Your task to perform on an android device: Open ESPN.com Image 0: 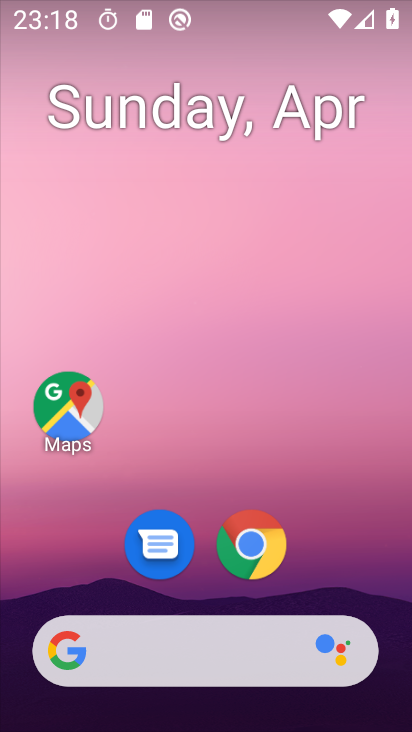
Step 0: drag from (347, 499) to (322, 161)
Your task to perform on an android device: Open ESPN.com Image 1: 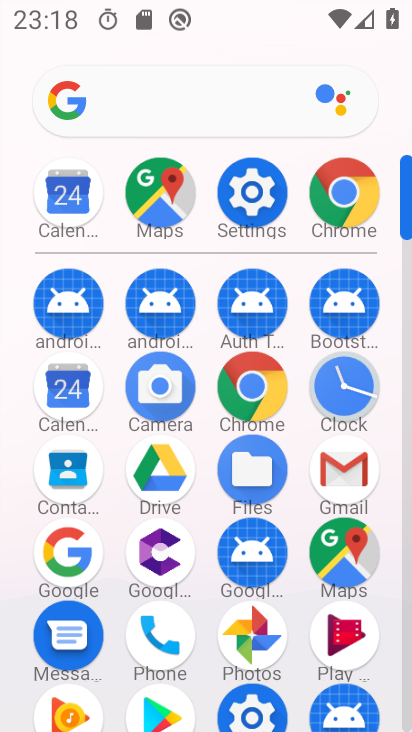
Step 1: click (343, 192)
Your task to perform on an android device: Open ESPN.com Image 2: 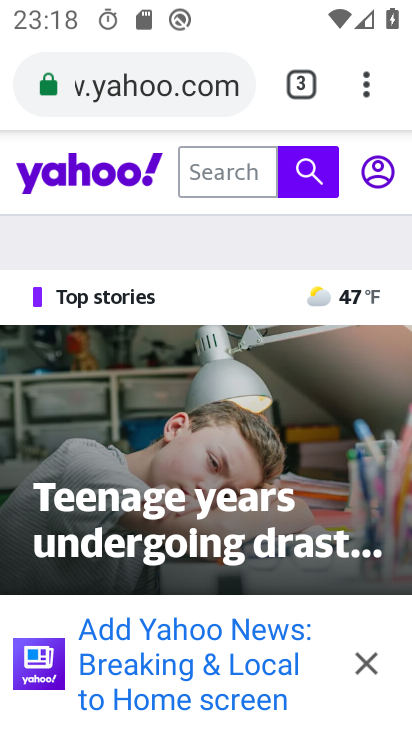
Step 2: click (369, 87)
Your task to perform on an android device: Open ESPN.com Image 3: 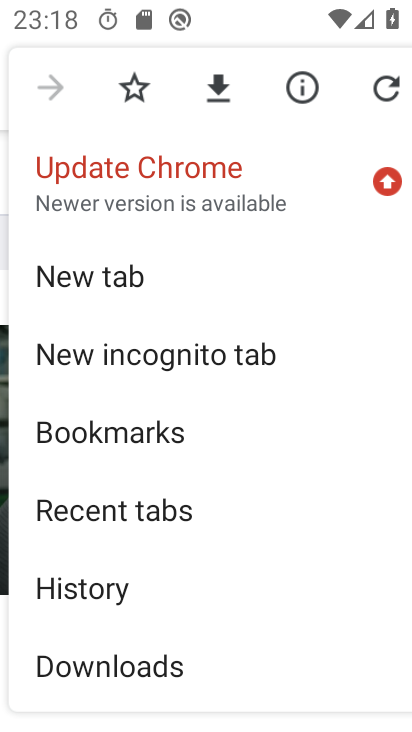
Step 3: click (120, 266)
Your task to perform on an android device: Open ESPN.com Image 4: 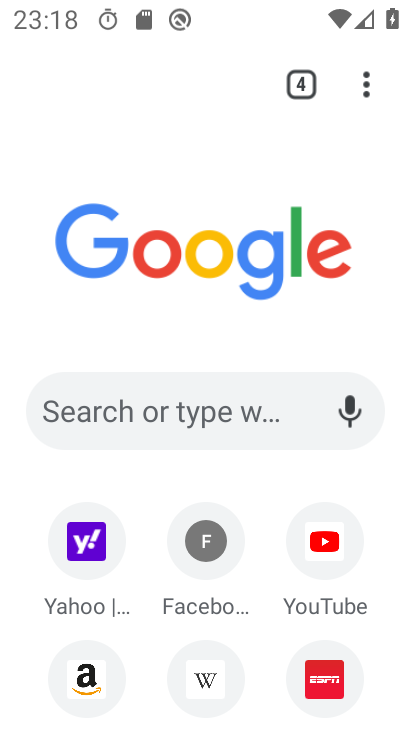
Step 4: click (320, 665)
Your task to perform on an android device: Open ESPN.com Image 5: 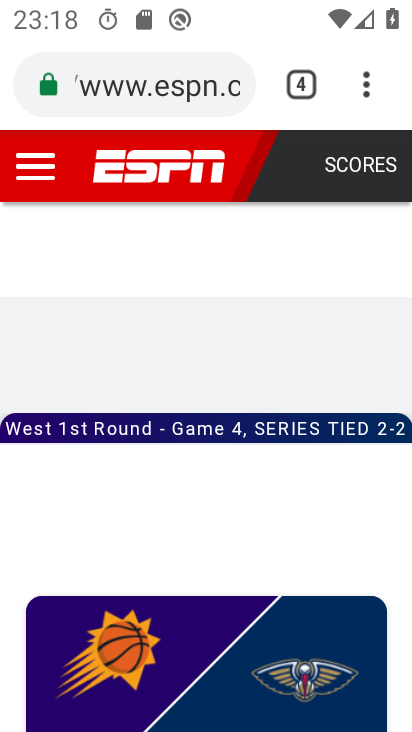
Step 5: task complete